Your task to perform on an android device: turn off priority inbox in the gmail app Image 0: 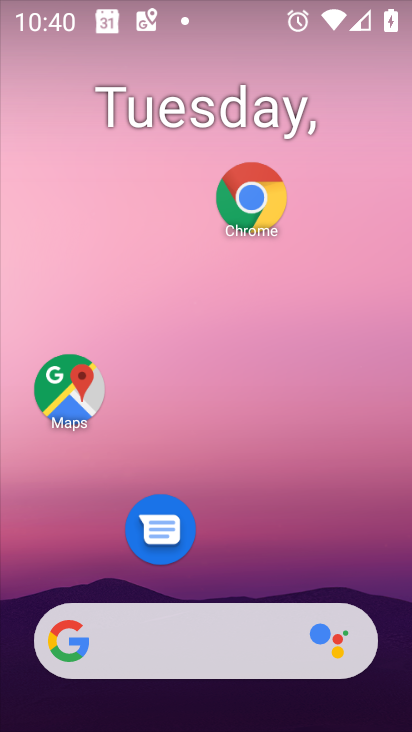
Step 0: drag from (297, 557) to (309, 24)
Your task to perform on an android device: turn off priority inbox in the gmail app Image 1: 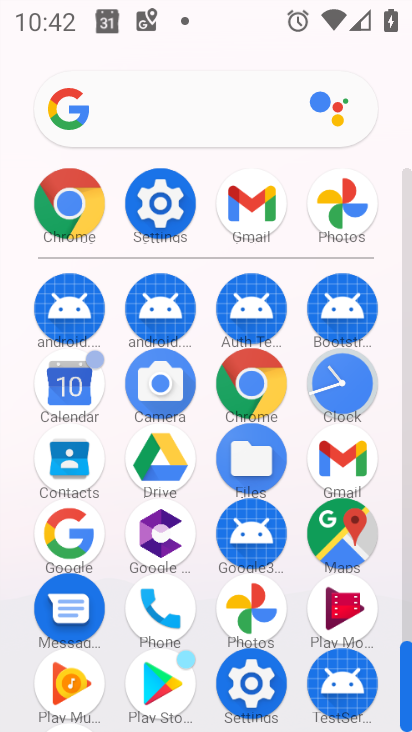
Step 1: click (329, 464)
Your task to perform on an android device: turn off priority inbox in the gmail app Image 2: 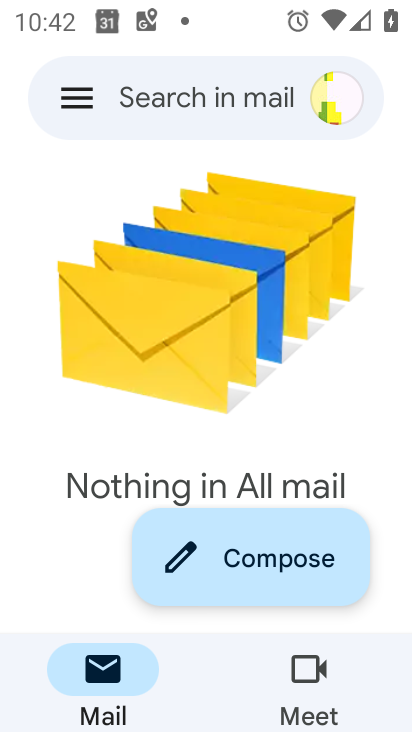
Step 2: click (69, 114)
Your task to perform on an android device: turn off priority inbox in the gmail app Image 3: 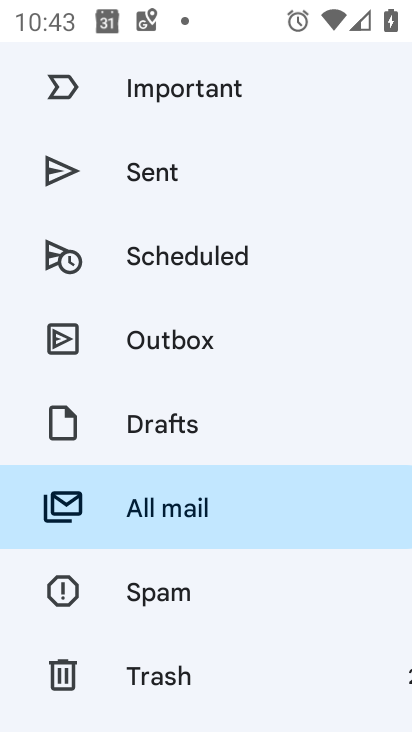
Step 3: drag from (100, 602) to (176, 69)
Your task to perform on an android device: turn off priority inbox in the gmail app Image 4: 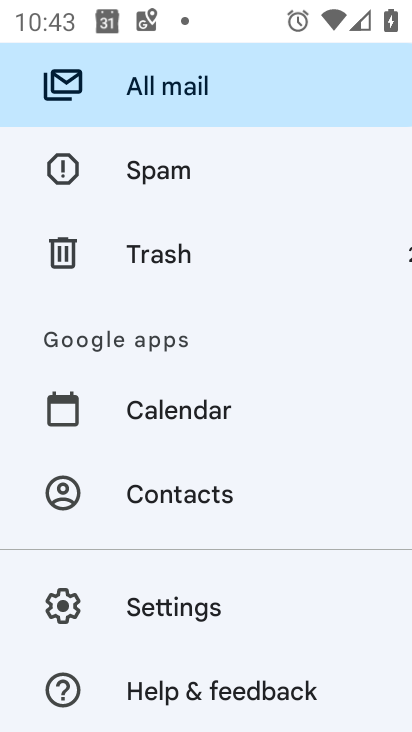
Step 4: click (185, 611)
Your task to perform on an android device: turn off priority inbox in the gmail app Image 5: 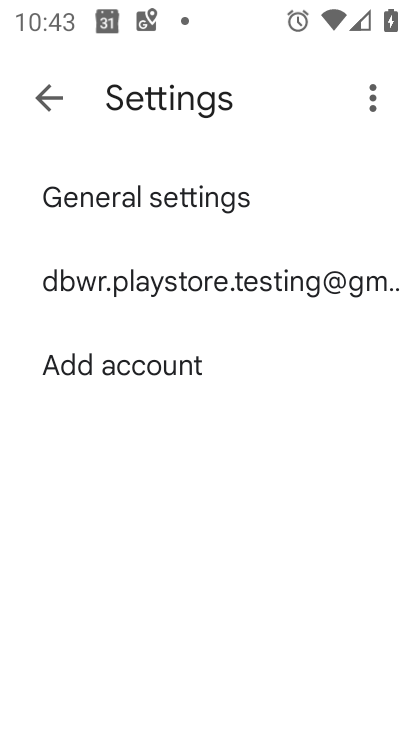
Step 5: click (242, 210)
Your task to perform on an android device: turn off priority inbox in the gmail app Image 6: 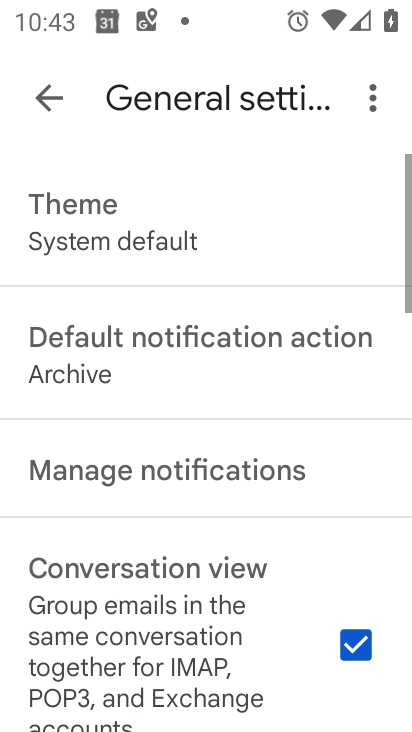
Step 6: drag from (177, 602) to (232, 200)
Your task to perform on an android device: turn off priority inbox in the gmail app Image 7: 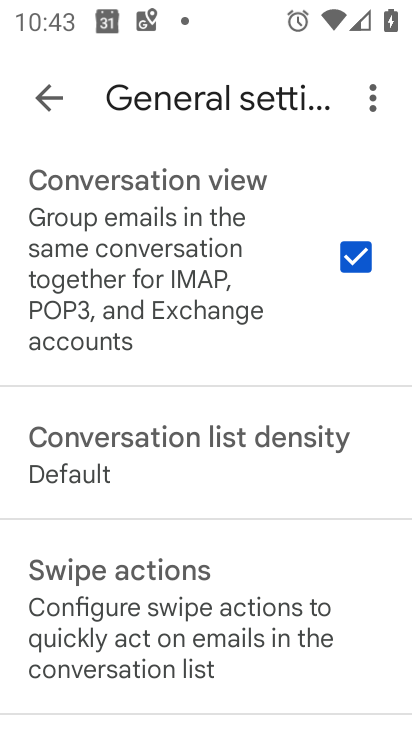
Step 7: drag from (206, 483) to (244, 253)
Your task to perform on an android device: turn off priority inbox in the gmail app Image 8: 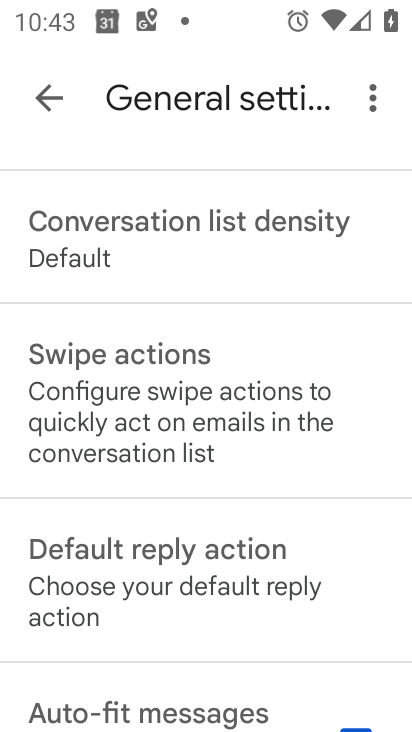
Step 8: drag from (204, 507) to (274, 166)
Your task to perform on an android device: turn off priority inbox in the gmail app Image 9: 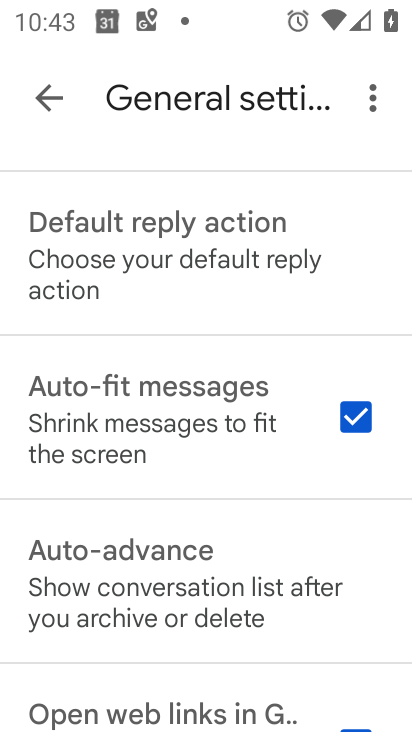
Step 9: drag from (190, 638) to (298, 195)
Your task to perform on an android device: turn off priority inbox in the gmail app Image 10: 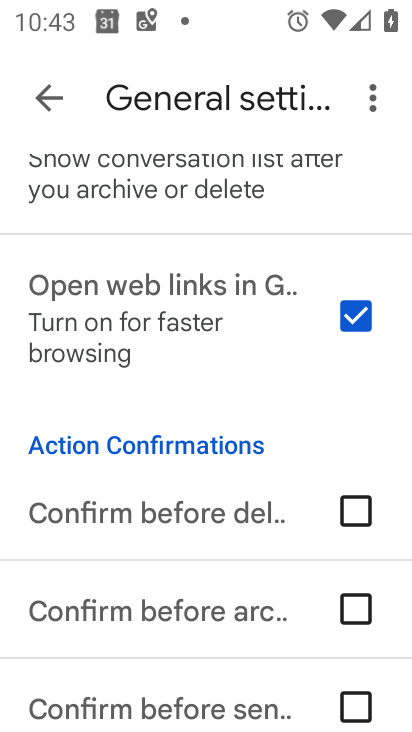
Step 10: drag from (185, 536) to (222, 287)
Your task to perform on an android device: turn off priority inbox in the gmail app Image 11: 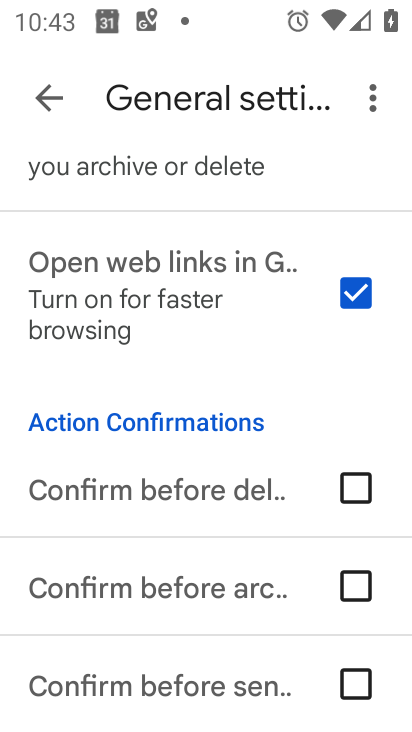
Step 11: click (67, 103)
Your task to perform on an android device: turn off priority inbox in the gmail app Image 12: 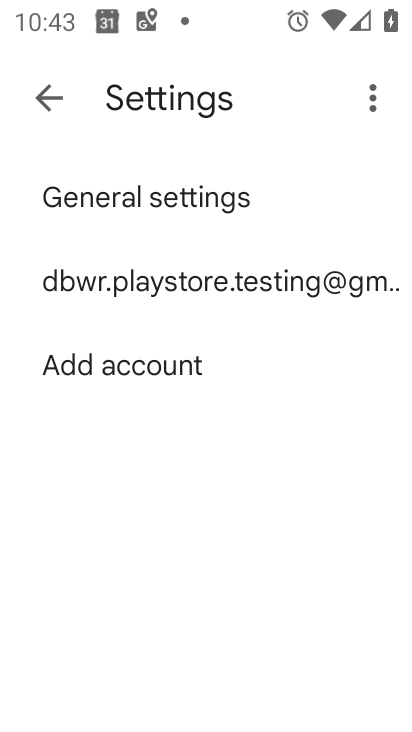
Step 12: click (124, 264)
Your task to perform on an android device: turn off priority inbox in the gmail app Image 13: 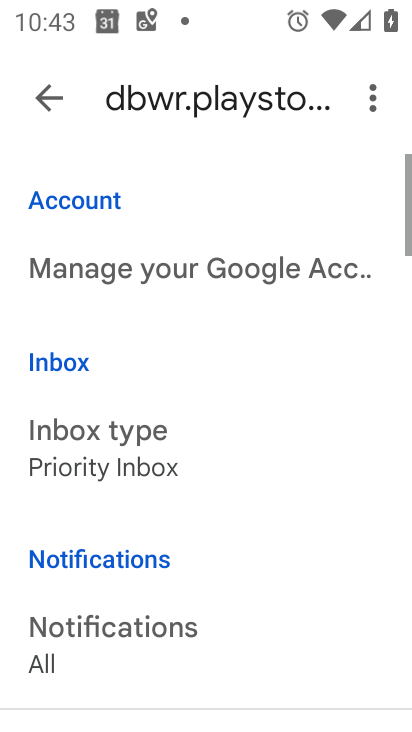
Step 13: drag from (149, 622) to (172, 492)
Your task to perform on an android device: turn off priority inbox in the gmail app Image 14: 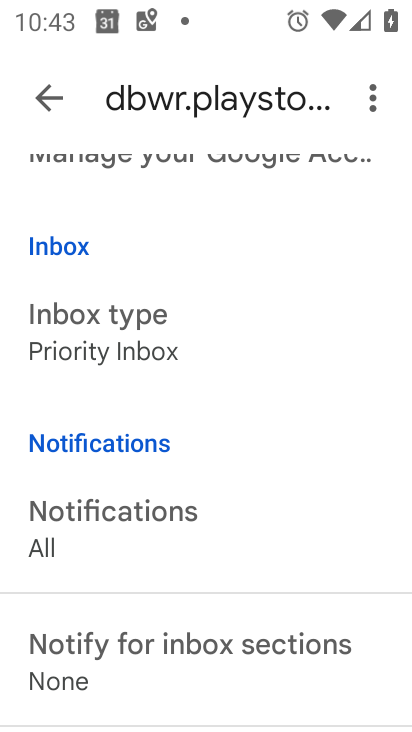
Step 14: click (253, 359)
Your task to perform on an android device: turn off priority inbox in the gmail app Image 15: 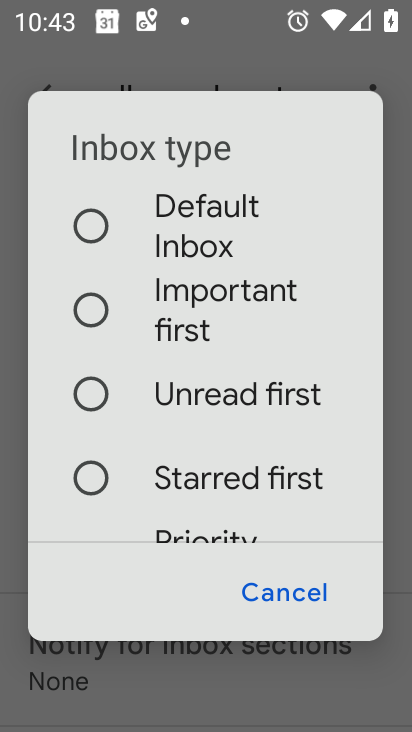
Step 15: click (200, 210)
Your task to perform on an android device: turn off priority inbox in the gmail app Image 16: 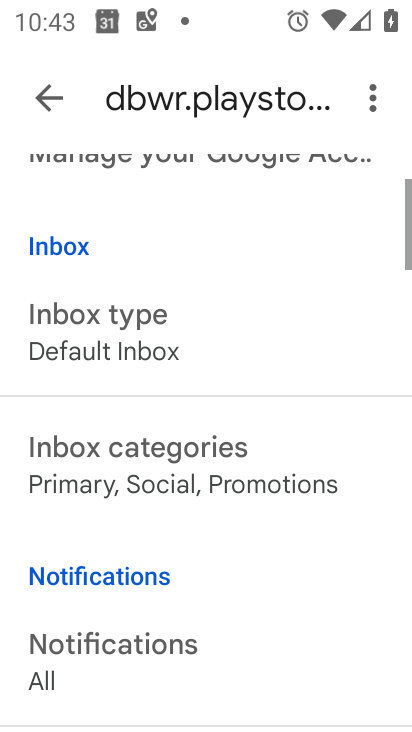
Step 16: task complete